Your task to perform on an android device: install app "Speedtest by Ookla" Image 0: 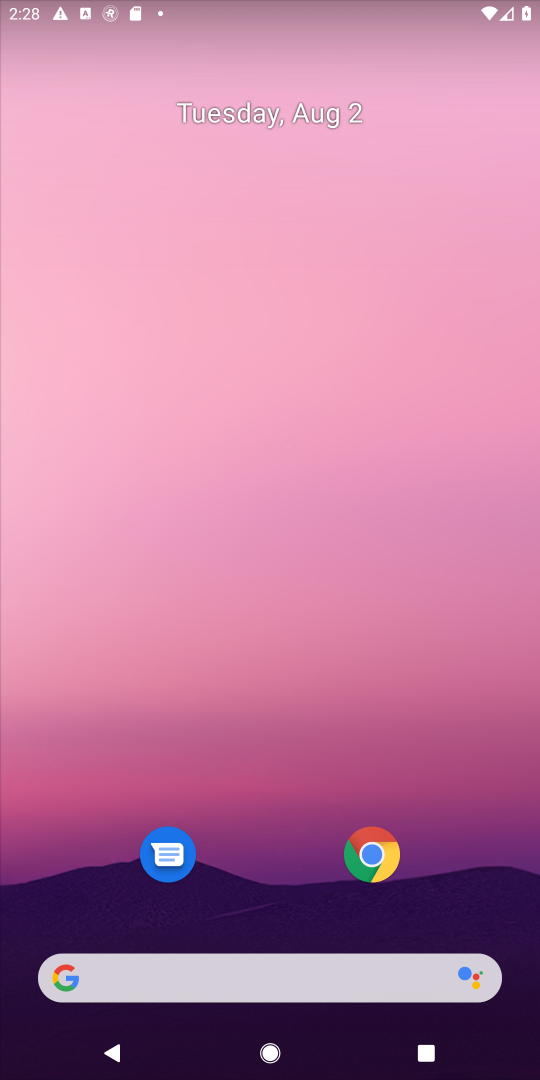
Step 0: drag from (318, 634) to (328, 13)
Your task to perform on an android device: install app "Speedtest by Ookla" Image 1: 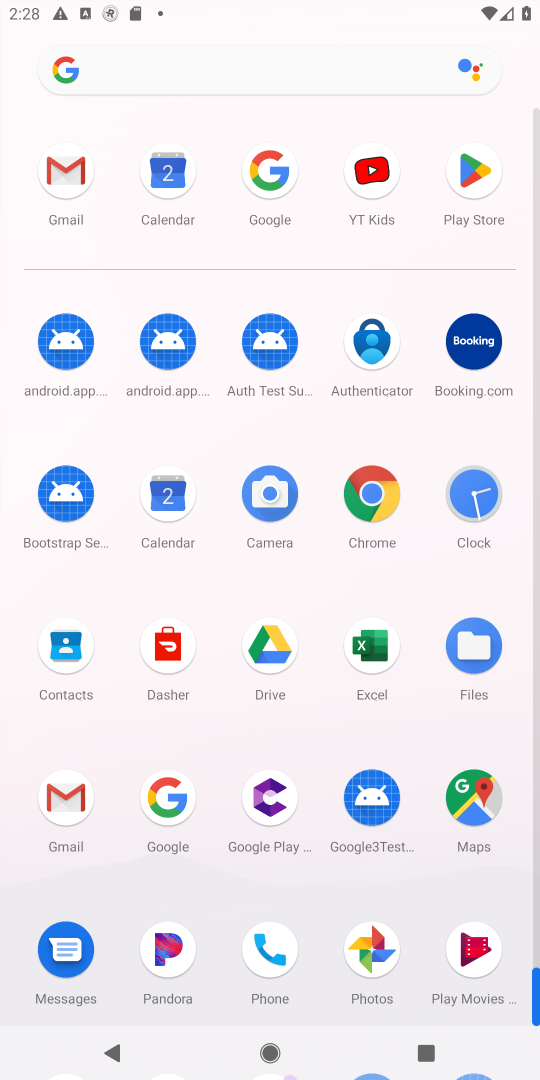
Step 1: click (477, 166)
Your task to perform on an android device: install app "Speedtest by Ookla" Image 2: 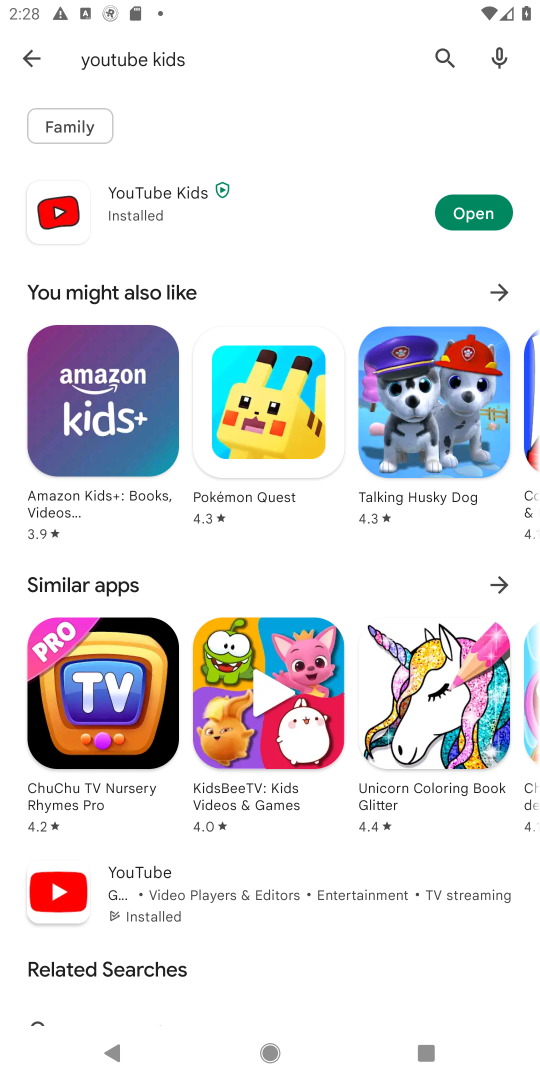
Step 2: click (439, 53)
Your task to perform on an android device: install app "Speedtest by Ookla" Image 3: 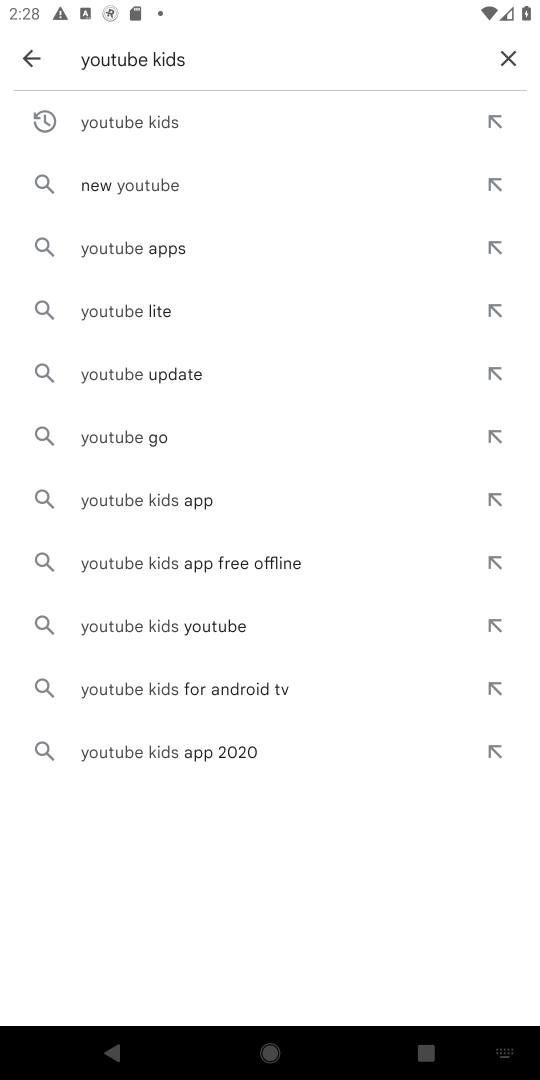
Step 3: click (502, 50)
Your task to perform on an android device: install app "Speedtest by Ookla" Image 4: 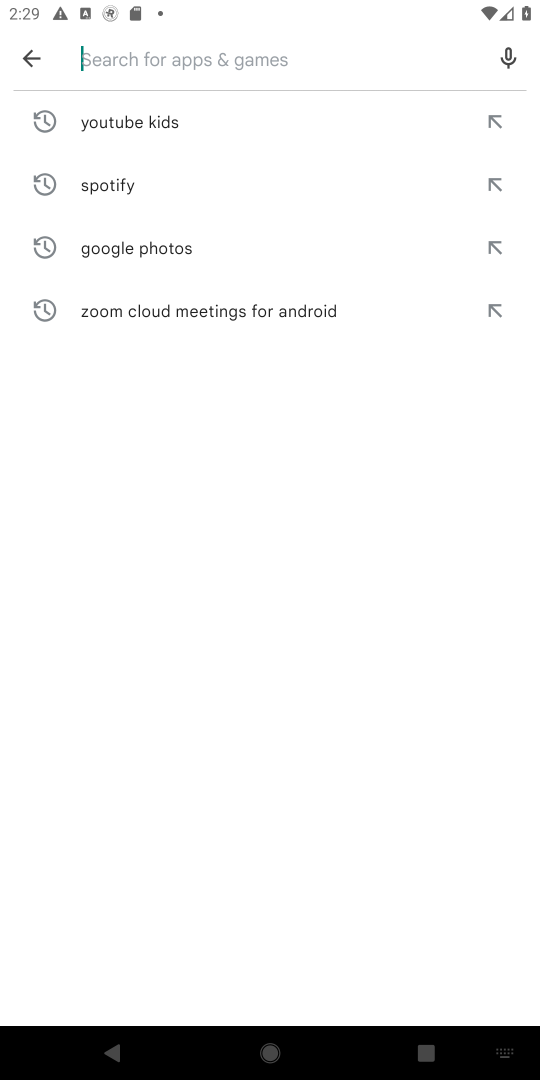
Step 4: type "Speedtest by Ookla"
Your task to perform on an android device: install app "Speedtest by Ookla" Image 5: 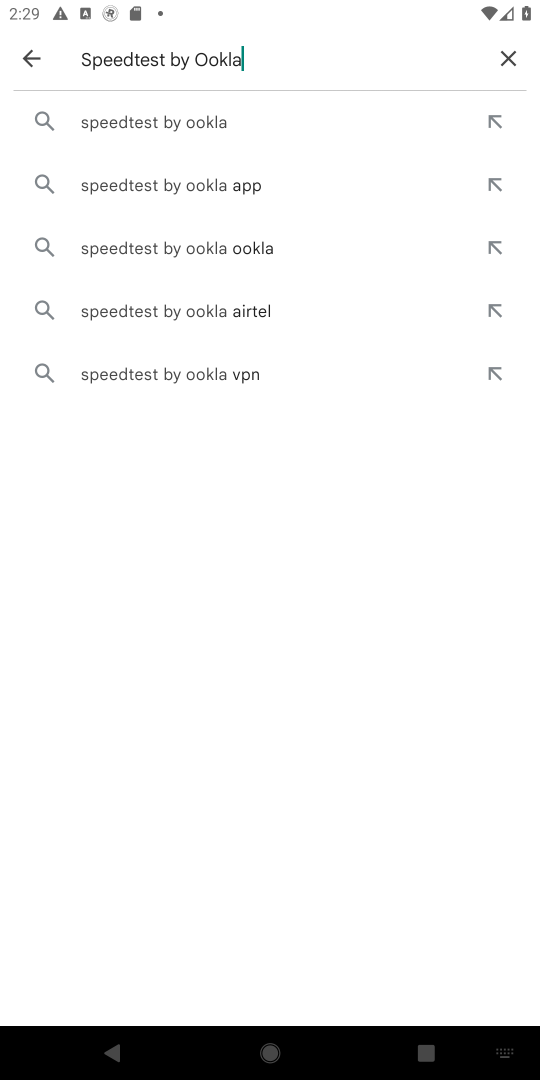
Step 5: click (172, 123)
Your task to perform on an android device: install app "Speedtest by Ookla" Image 6: 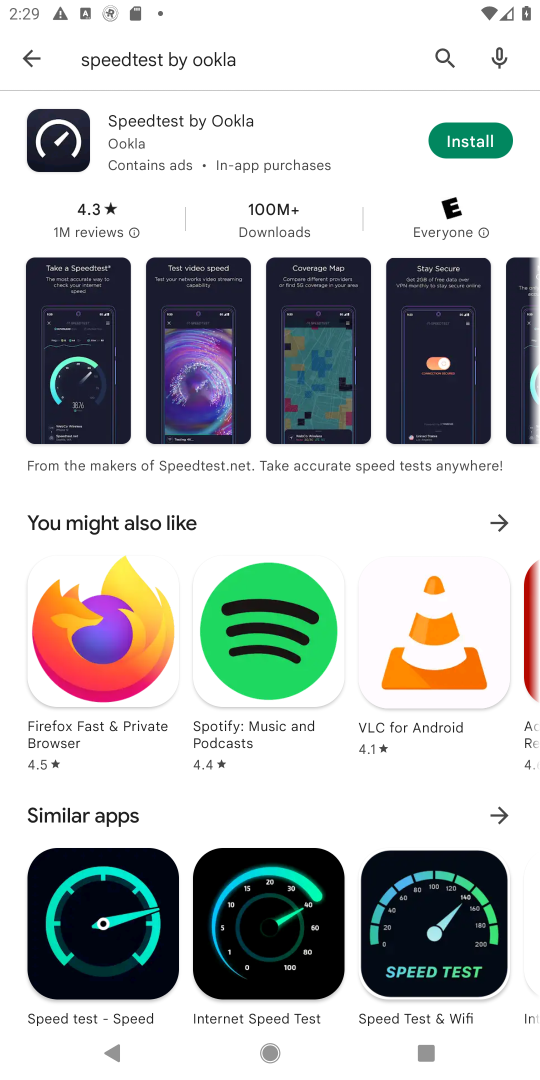
Step 6: click (479, 138)
Your task to perform on an android device: install app "Speedtest by Ookla" Image 7: 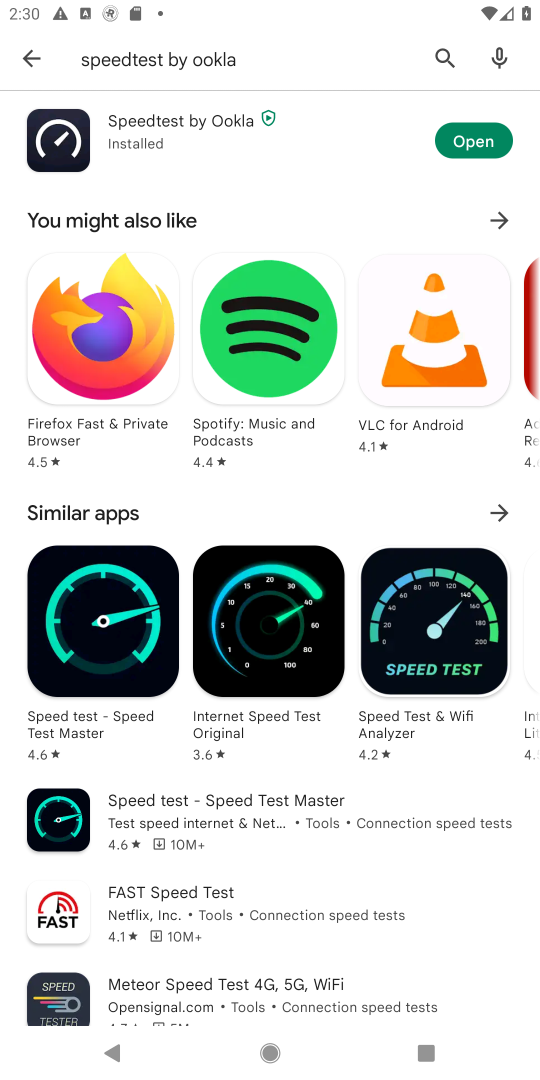
Step 7: task complete